Your task to perform on an android device: turn off notifications in google photos Image 0: 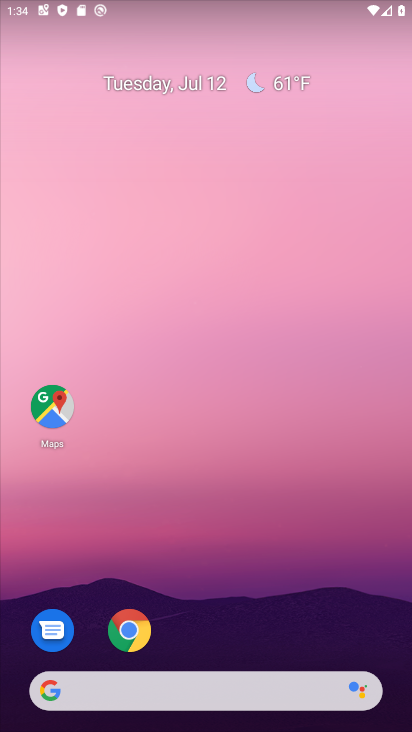
Step 0: drag from (236, 626) to (290, 228)
Your task to perform on an android device: turn off notifications in google photos Image 1: 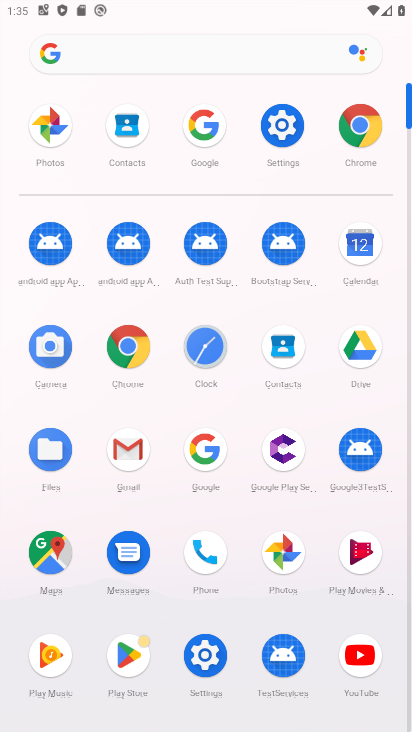
Step 1: click (62, 124)
Your task to perform on an android device: turn off notifications in google photos Image 2: 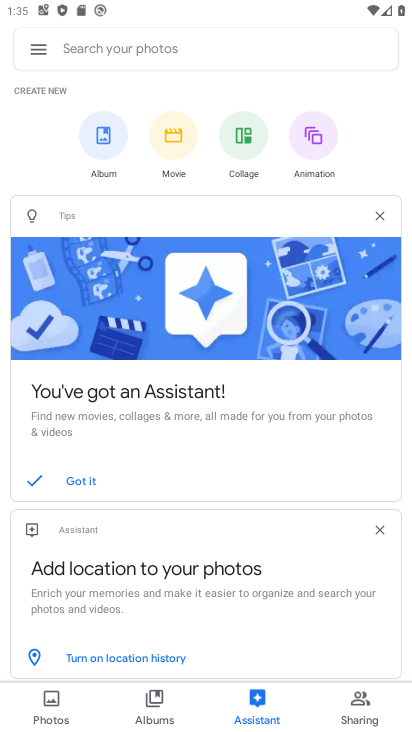
Step 2: click (48, 56)
Your task to perform on an android device: turn off notifications in google photos Image 3: 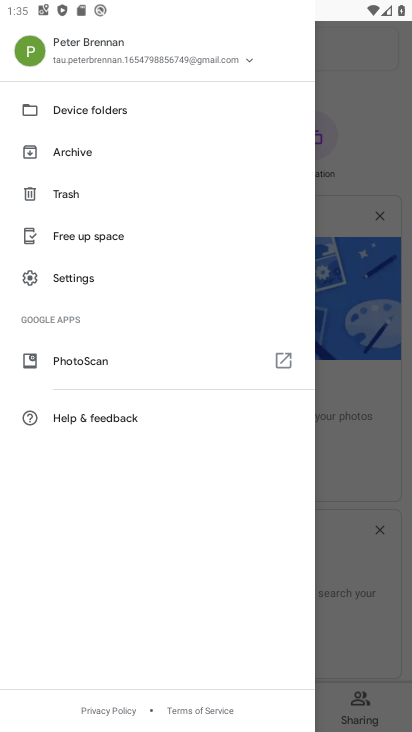
Step 3: click (86, 289)
Your task to perform on an android device: turn off notifications in google photos Image 4: 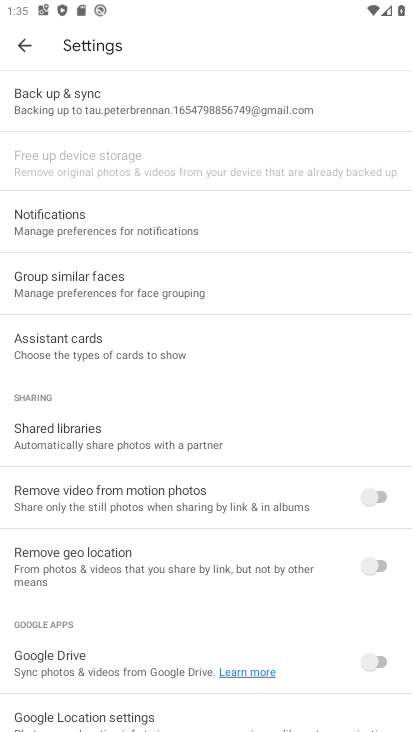
Step 4: click (76, 233)
Your task to perform on an android device: turn off notifications in google photos Image 5: 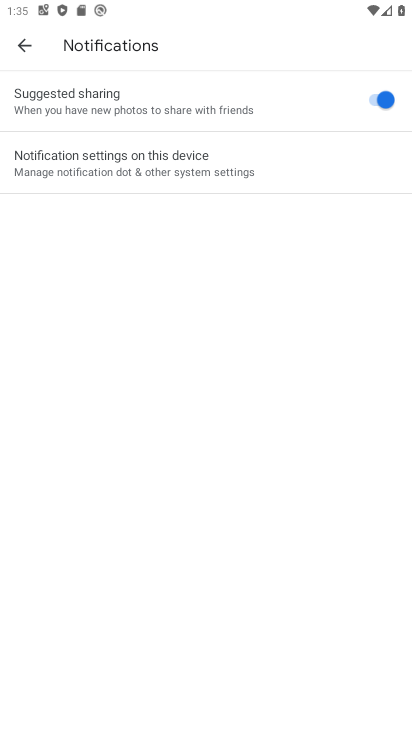
Step 5: click (122, 176)
Your task to perform on an android device: turn off notifications in google photos Image 6: 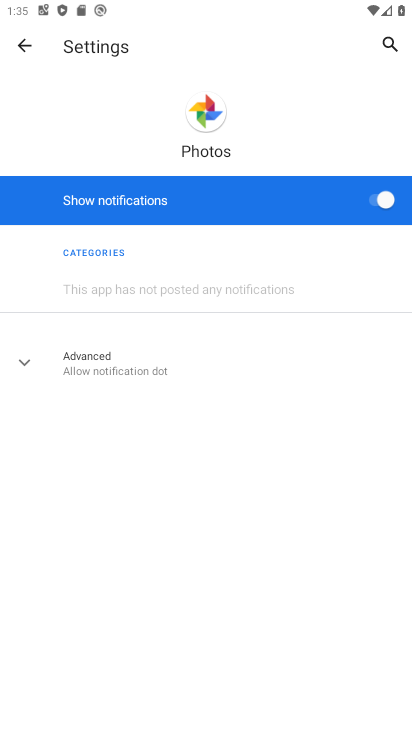
Step 6: click (362, 194)
Your task to perform on an android device: turn off notifications in google photos Image 7: 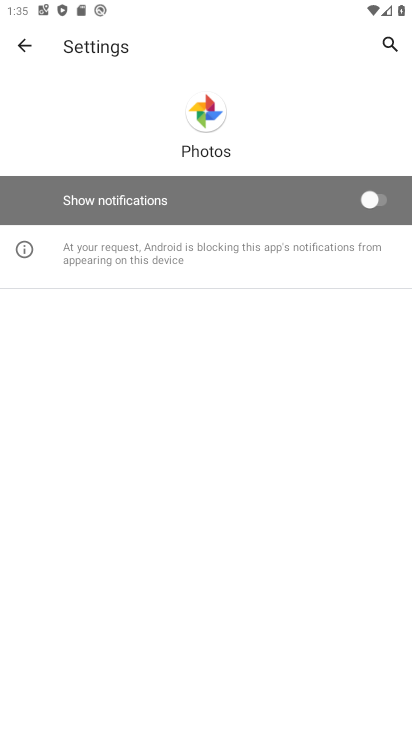
Step 7: task complete